Your task to perform on an android device: turn on translation in the chrome app Image 0: 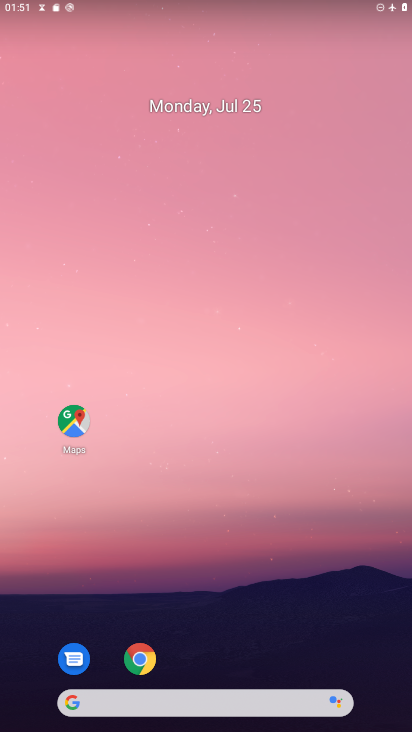
Step 0: drag from (208, 628) to (226, 9)
Your task to perform on an android device: turn on translation in the chrome app Image 1: 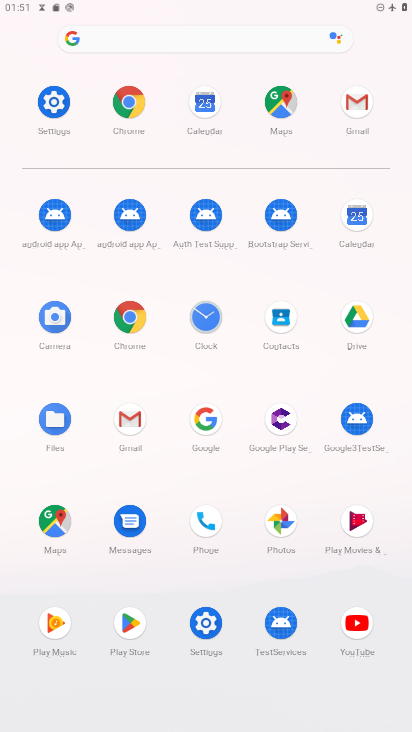
Step 1: click (130, 96)
Your task to perform on an android device: turn on translation in the chrome app Image 2: 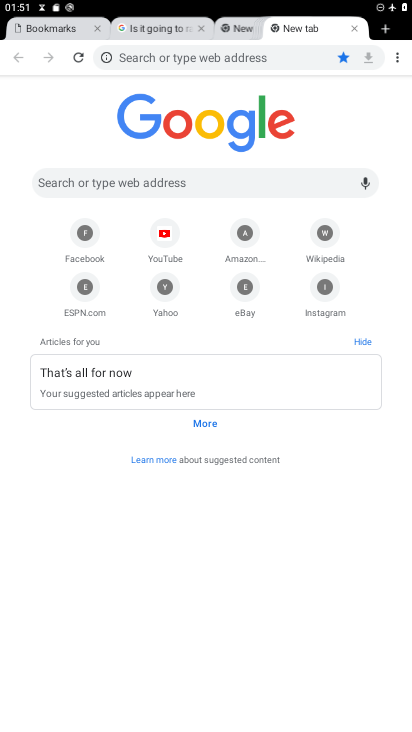
Step 2: click (396, 57)
Your task to perform on an android device: turn on translation in the chrome app Image 3: 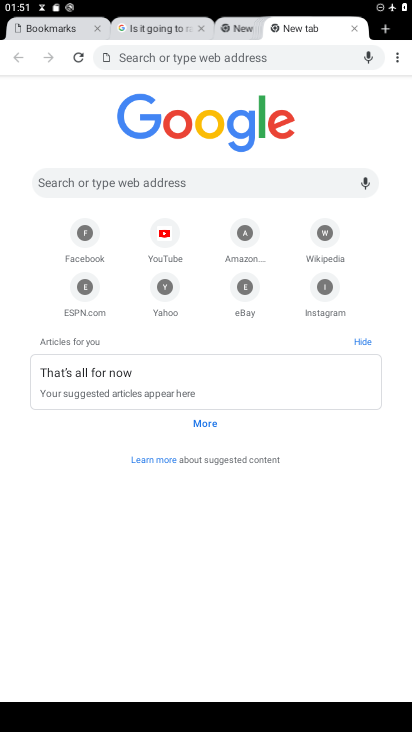
Step 3: click (392, 49)
Your task to perform on an android device: turn on translation in the chrome app Image 4: 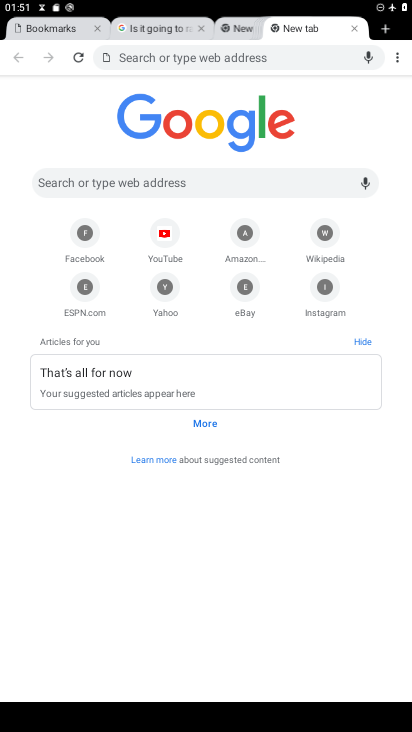
Step 4: click (404, 63)
Your task to perform on an android device: turn on translation in the chrome app Image 5: 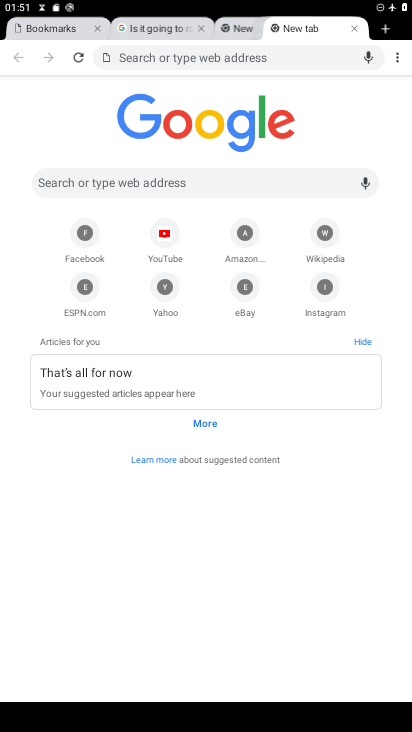
Step 5: click (404, 50)
Your task to perform on an android device: turn on translation in the chrome app Image 6: 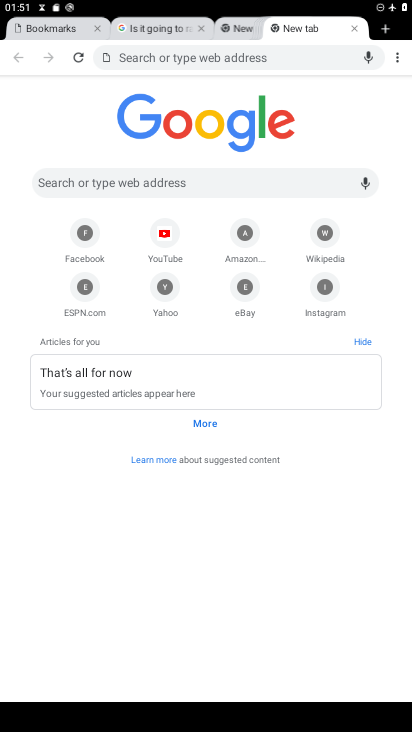
Step 6: click (404, 50)
Your task to perform on an android device: turn on translation in the chrome app Image 7: 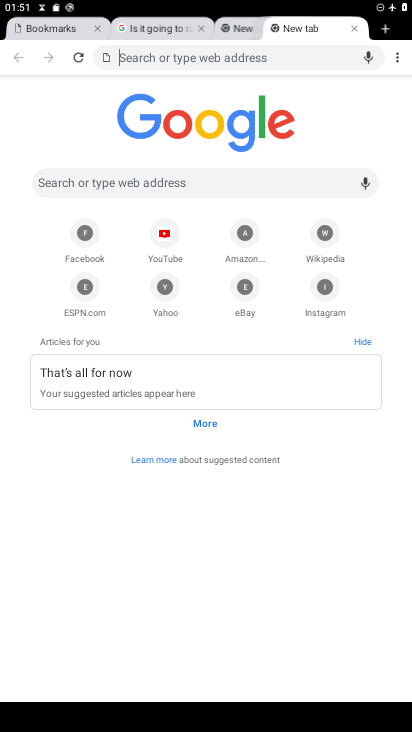
Step 7: click (401, 56)
Your task to perform on an android device: turn on translation in the chrome app Image 8: 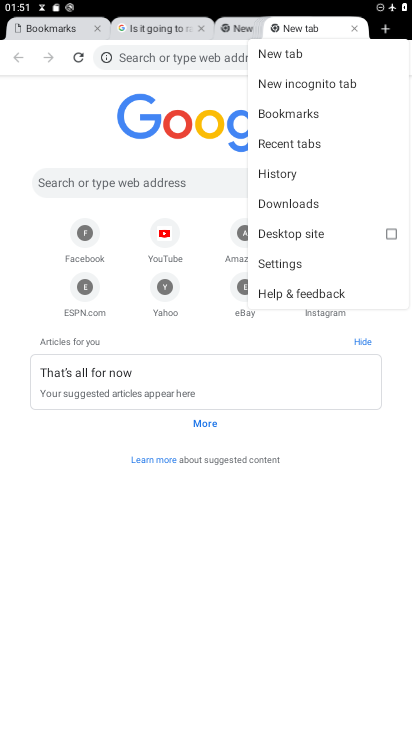
Step 8: click (280, 259)
Your task to perform on an android device: turn on translation in the chrome app Image 9: 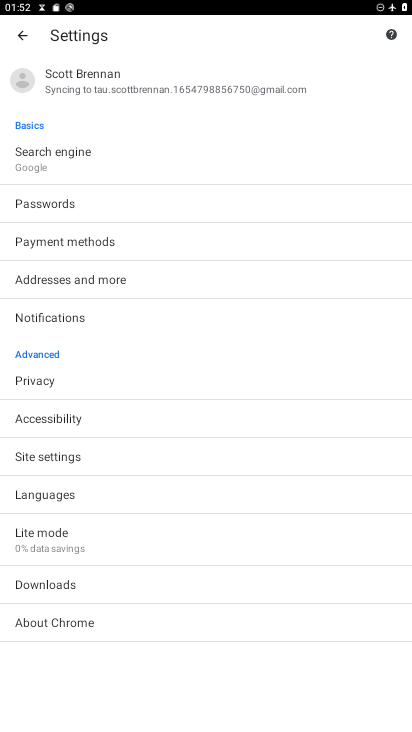
Step 9: click (91, 495)
Your task to perform on an android device: turn on translation in the chrome app Image 10: 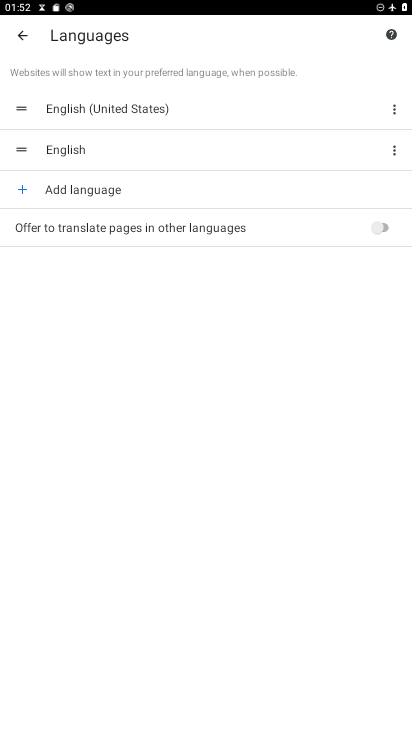
Step 10: click (381, 232)
Your task to perform on an android device: turn on translation in the chrome app Image 11: 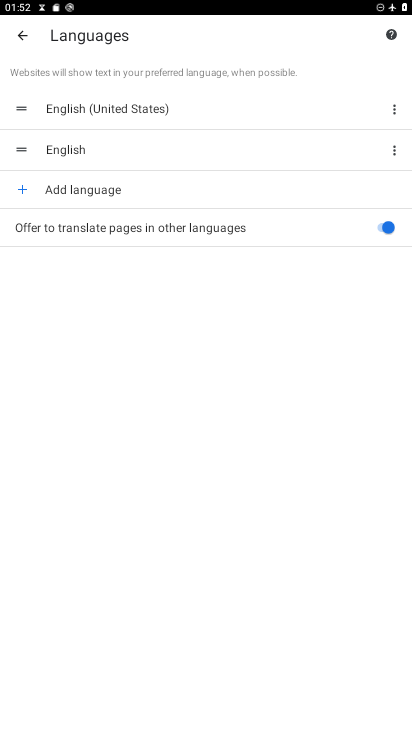
Step 11: task complete